Your task to perform on an android device: delete browsing data in the chrome app Image 0: 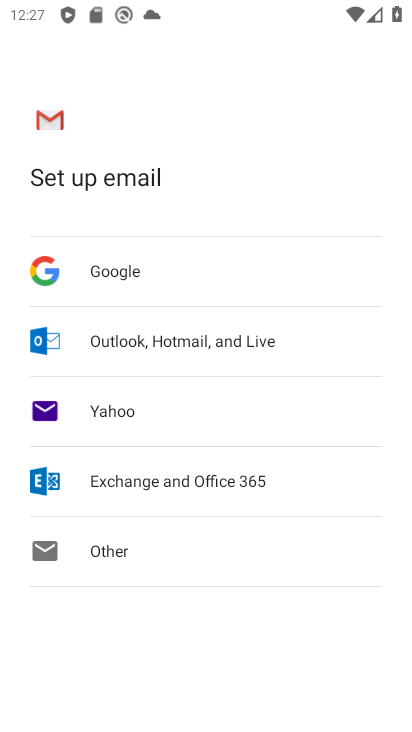
Step 0: press home button
Your task to perform on an android device: delete browsing data in the chrome app Image 1: 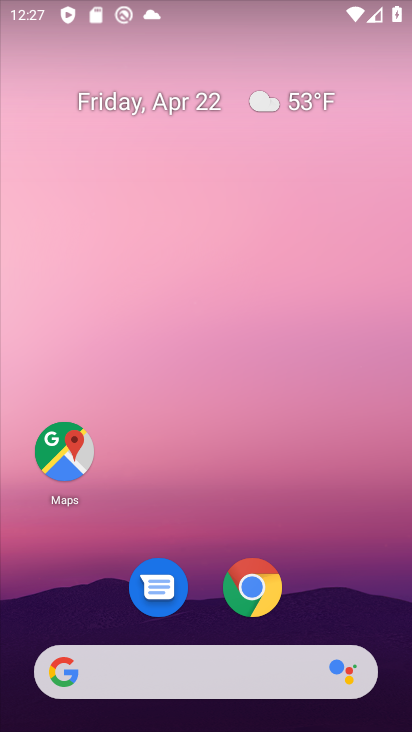
Step 1: drag from (350, 558) to (368, 113)
Your task to perform on an android device: delete browsing data in the chrome app Image 2: 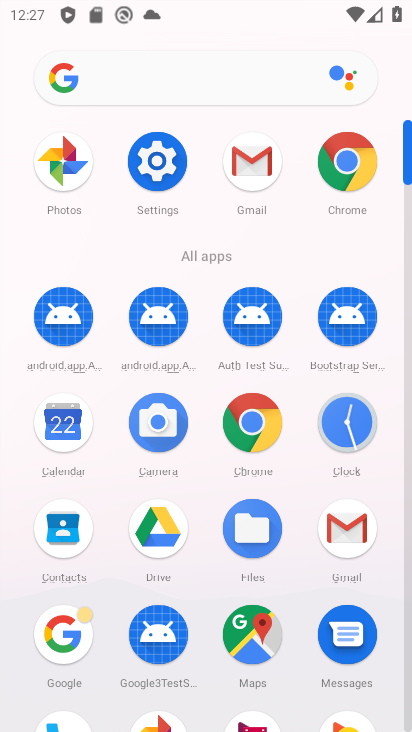
Step 2: click (259, 415)
Your task to perform on an android device: delete browsing data in the chrome app Image 3: 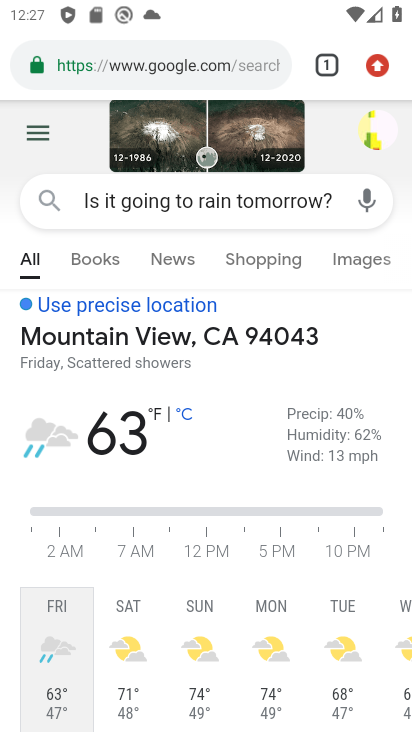
Step 3: drag from (376, 64) to (173, 633)
Your task to perform on an android device: delete browsing data in the chrome app Image 4: 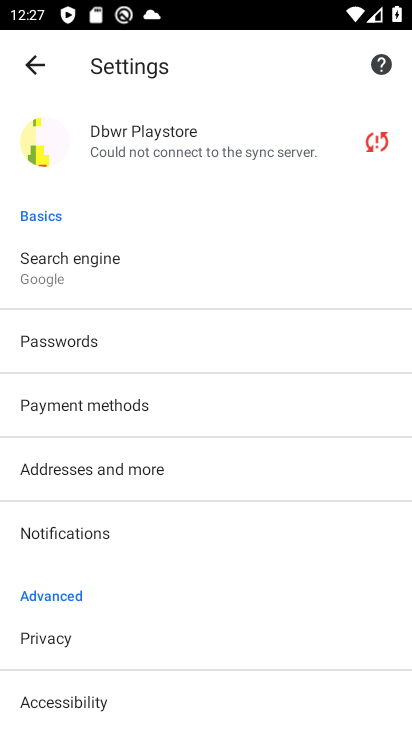
Step 4: click (34, 633)
Your task to perform on an android device: delete browsing data in the chrome app Image 5: 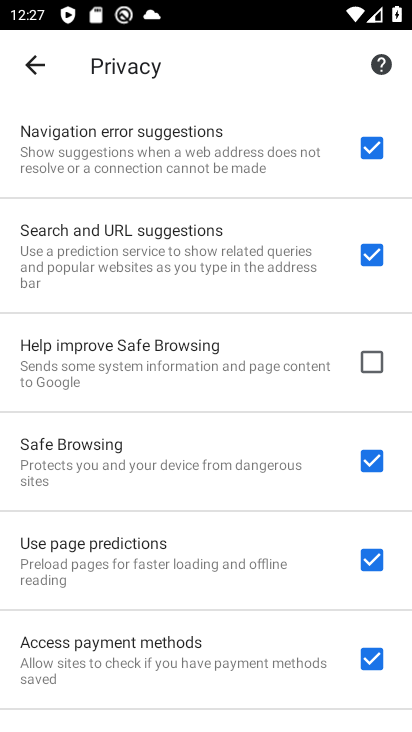
Step 5: drag from (266, 608) to (297, 167)
Your task to perform on an android device: delete browsing data in the chrome app Image 6: 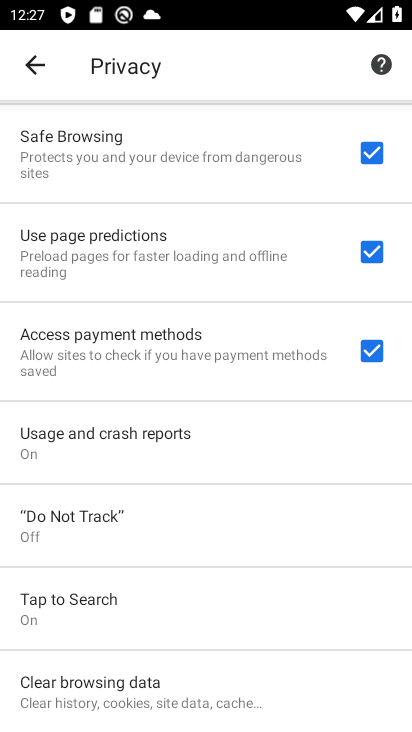
Step 6: click (141, 696)
Your task to perform on an android device: delete browsing data in the chrome app Image 7: 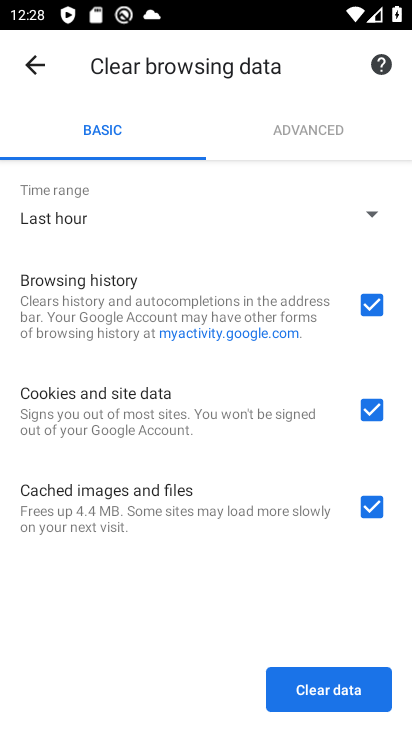
Step 7: click (333, 682)
Your task to perform on an android device: delete browsing data in the chrome app Image 8: 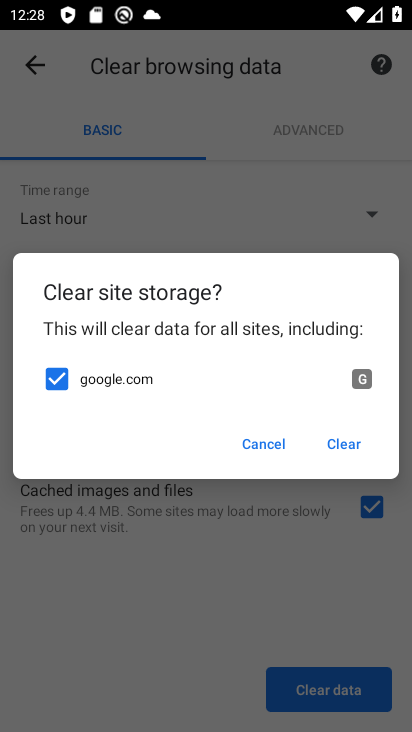
Step 8: click (350, 442)
Your task to perform on an android device: delete browsing data in the chrome app Image 9: 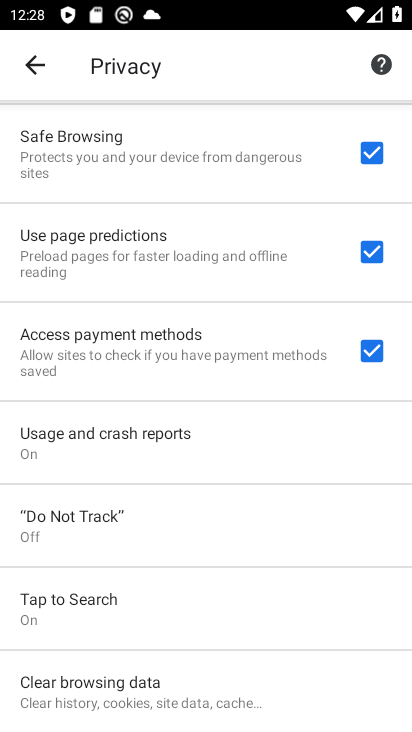
Step 9: task complete